Your task to perform on an android device: Open CNN.com Image 0: 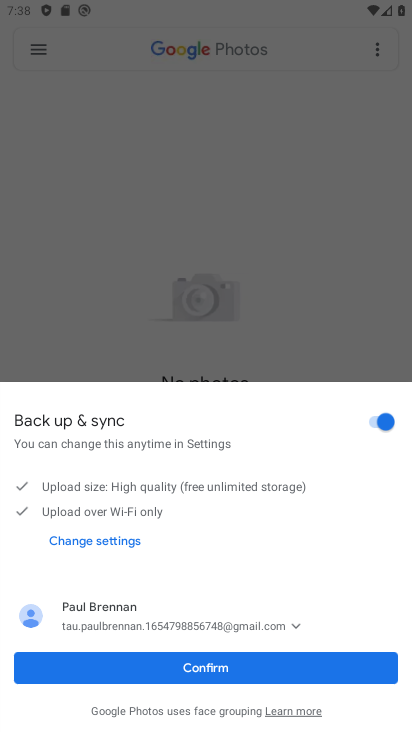
Step 0: press home button
Your task to perform on an android device: Open CNN.com Image 1: 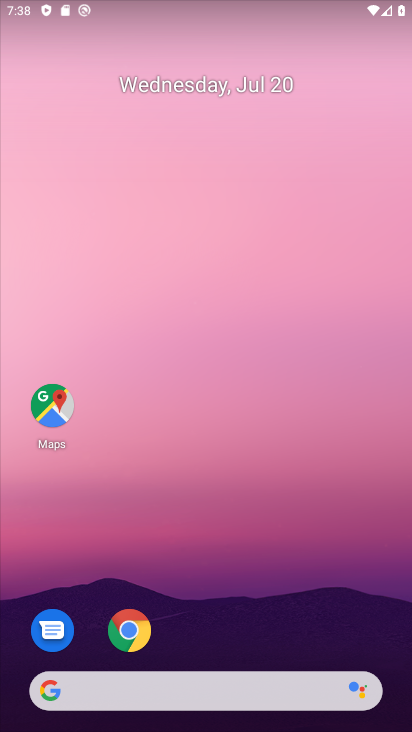
Step 1: drag from (209, 641) to (202, 197)
Your task to perform on an android device: Open CNN.com Image 2: 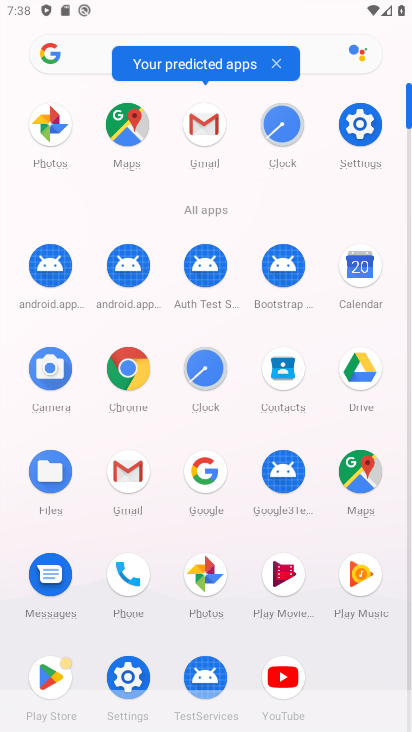
Step 2: click (131, 389)
Your task to perform on an android device: Open CNN.com Image 3: 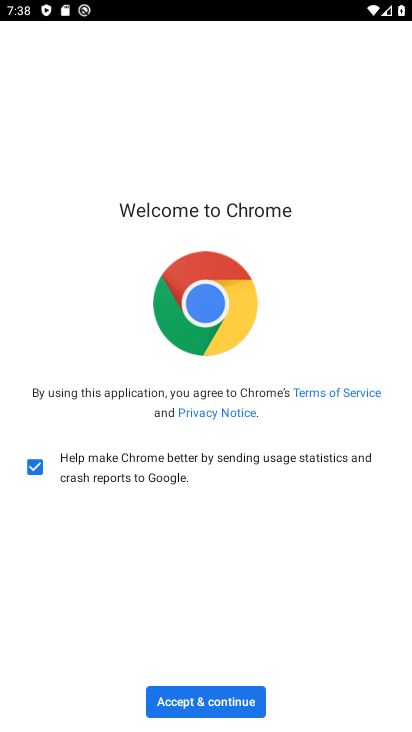
Step 3: click (213, 708)
Your task to perform on an android device: Open CNN.com Image 4: 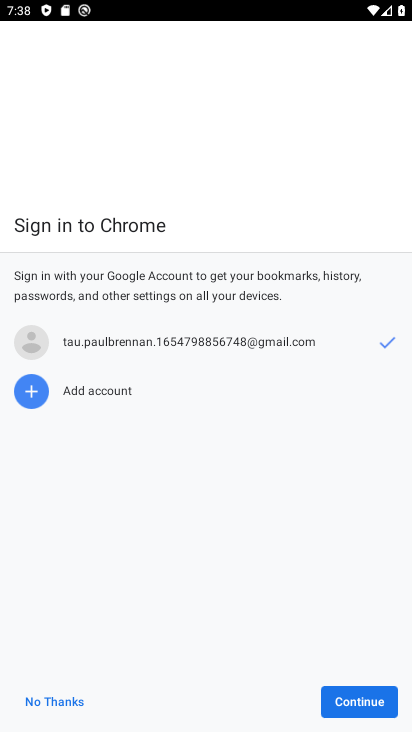
Step 4: click (364, 703)
Your task to perform on an android device: Open CNN.com Image 5: 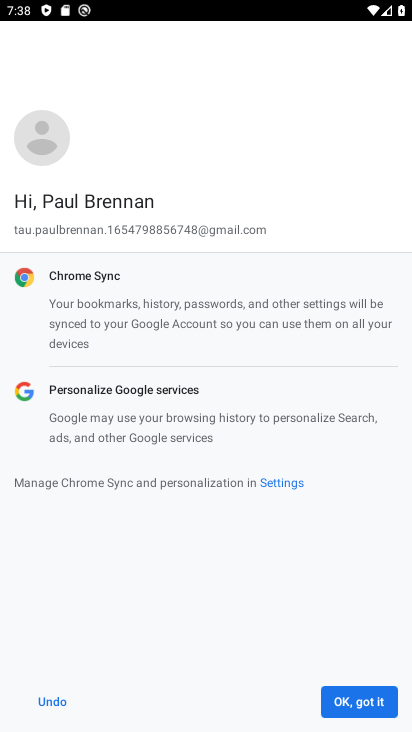
Step 5: click (364, 703)
Your task to perform on an android device: Open CNN.com Image 6: 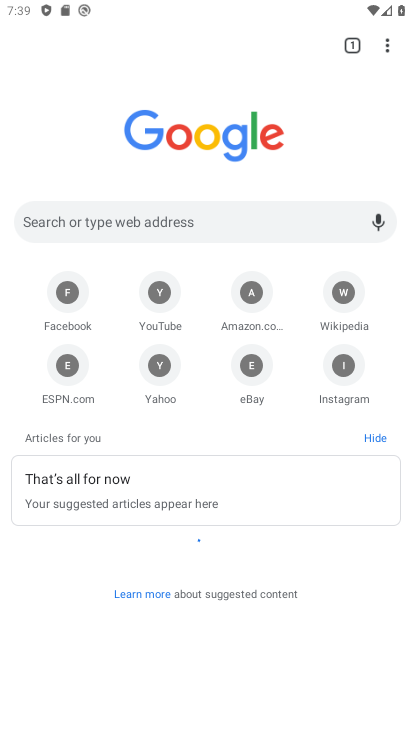
Step 6: click (177, 219)
Your task to perform on an android device: Open CNN.com Image 7: 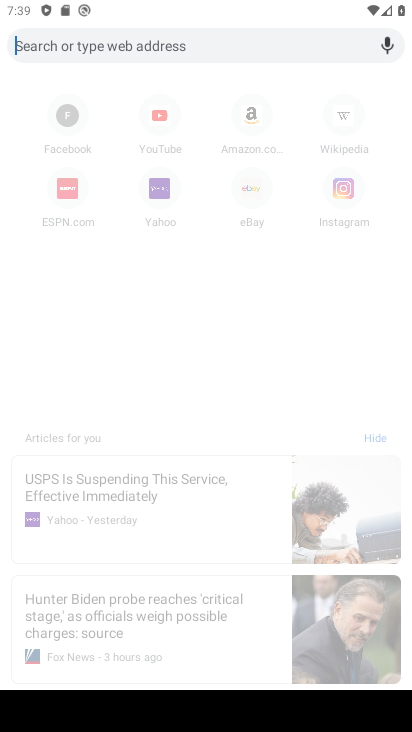
Step 7: type "CNN.com"
Your task to perform on an android device: Open CNN.com Image 8: 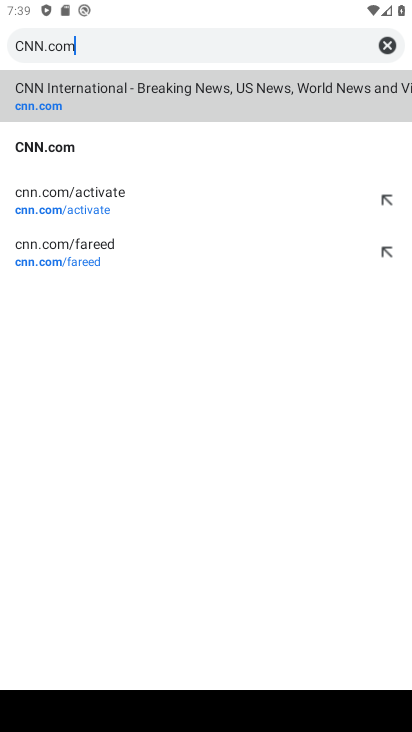
Step 8: click (247, 46)
Your task to perform on an android device: Open CNN.com Image 9: 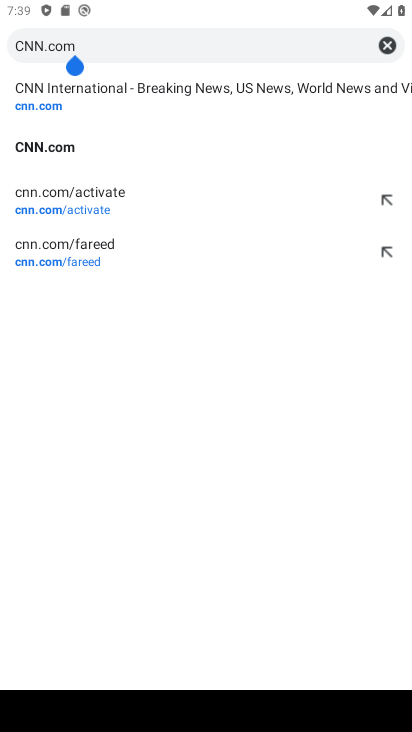
Step 9: click (50, 145)
Your task to perform on an android device: Open CNN.com Image 10: 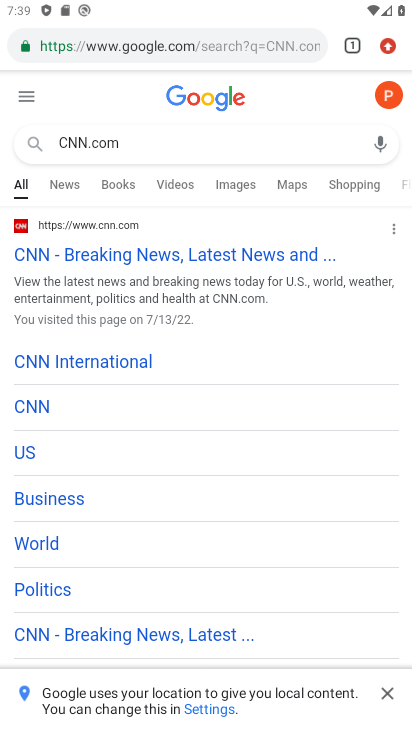
Step 10: task complete